Your task to perform on an android device: open app "Instagram" (install if not already installed) Image 0: 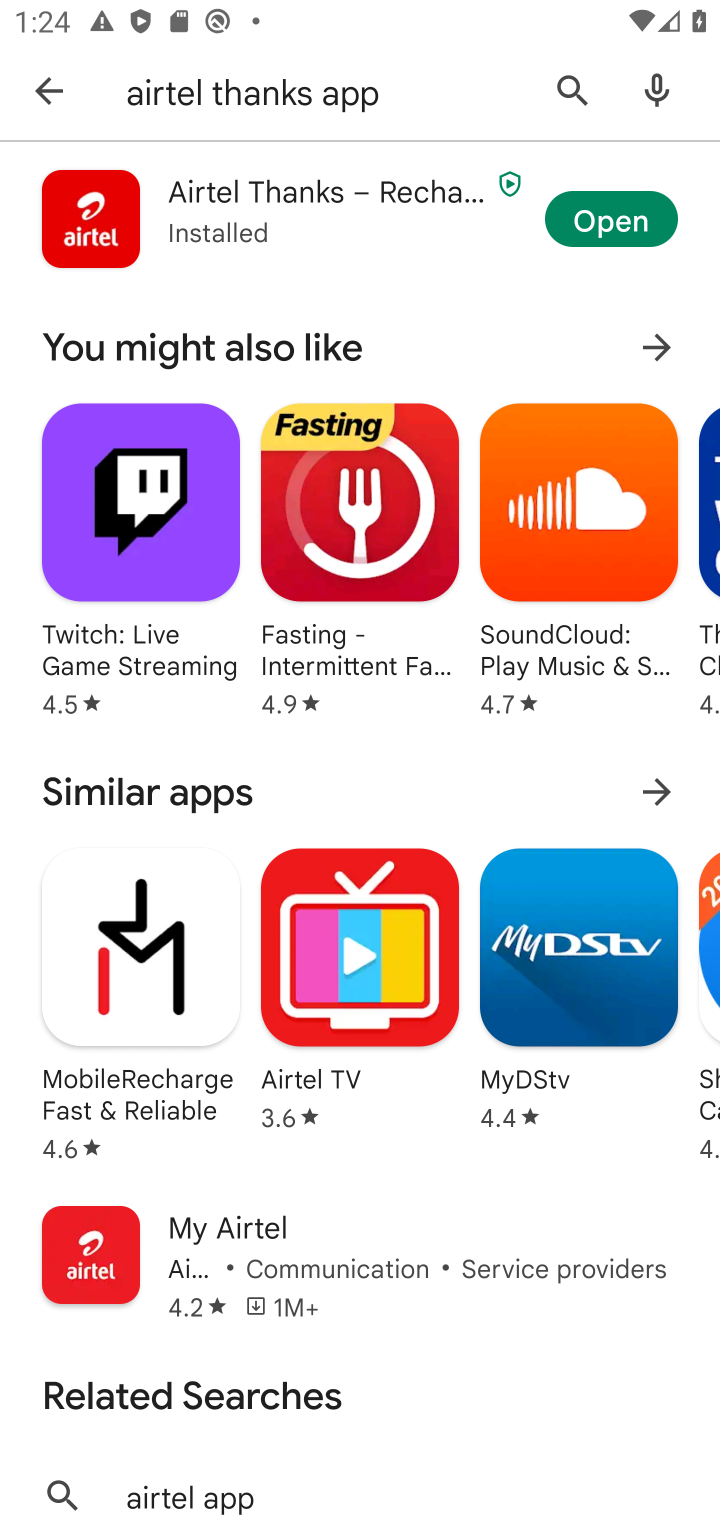
Step 0: click (59, 77)
Your task to perform on an android device: open app "Instagram" (install if not already installed) Image 1: 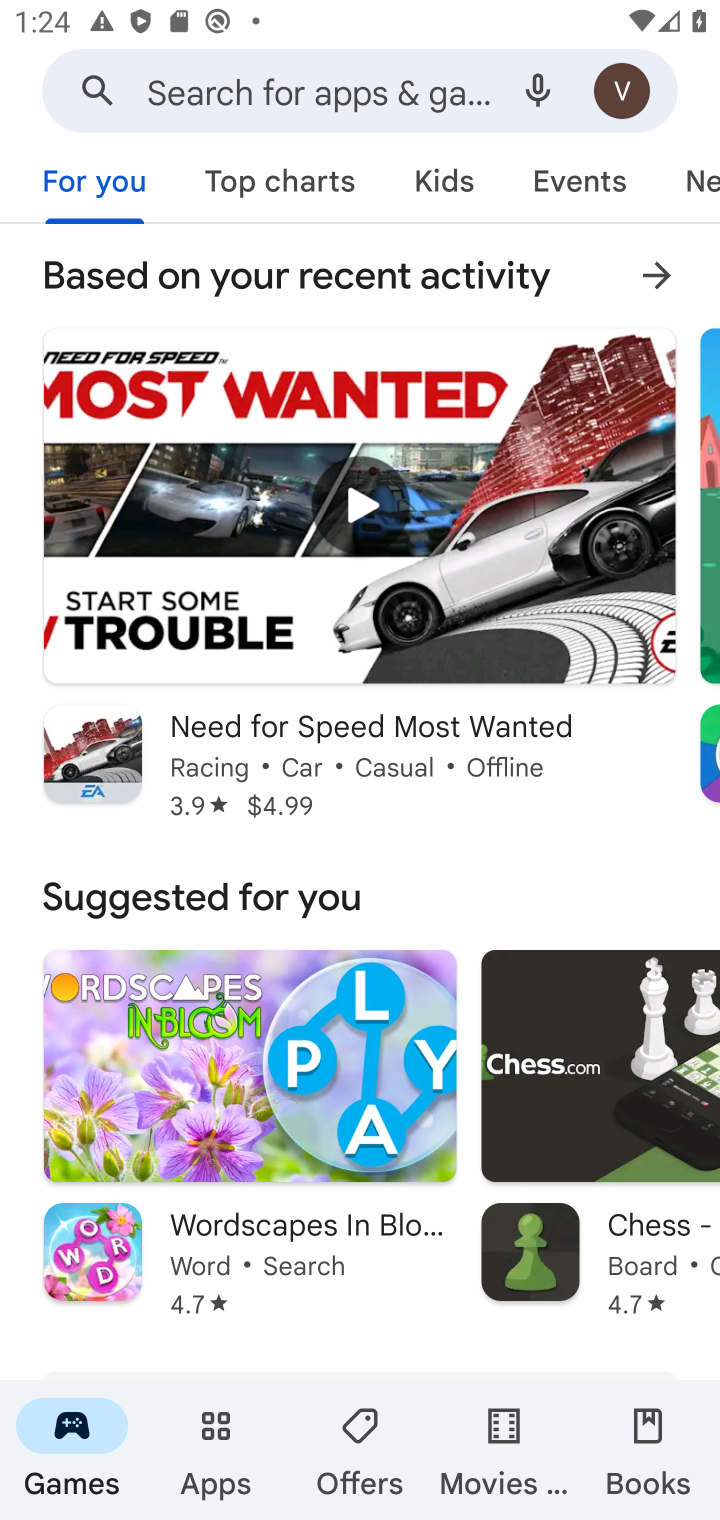
Step 1: press home button
Your task to perform on an android device: open app "Instagram" (install if not already installed) Image 2: 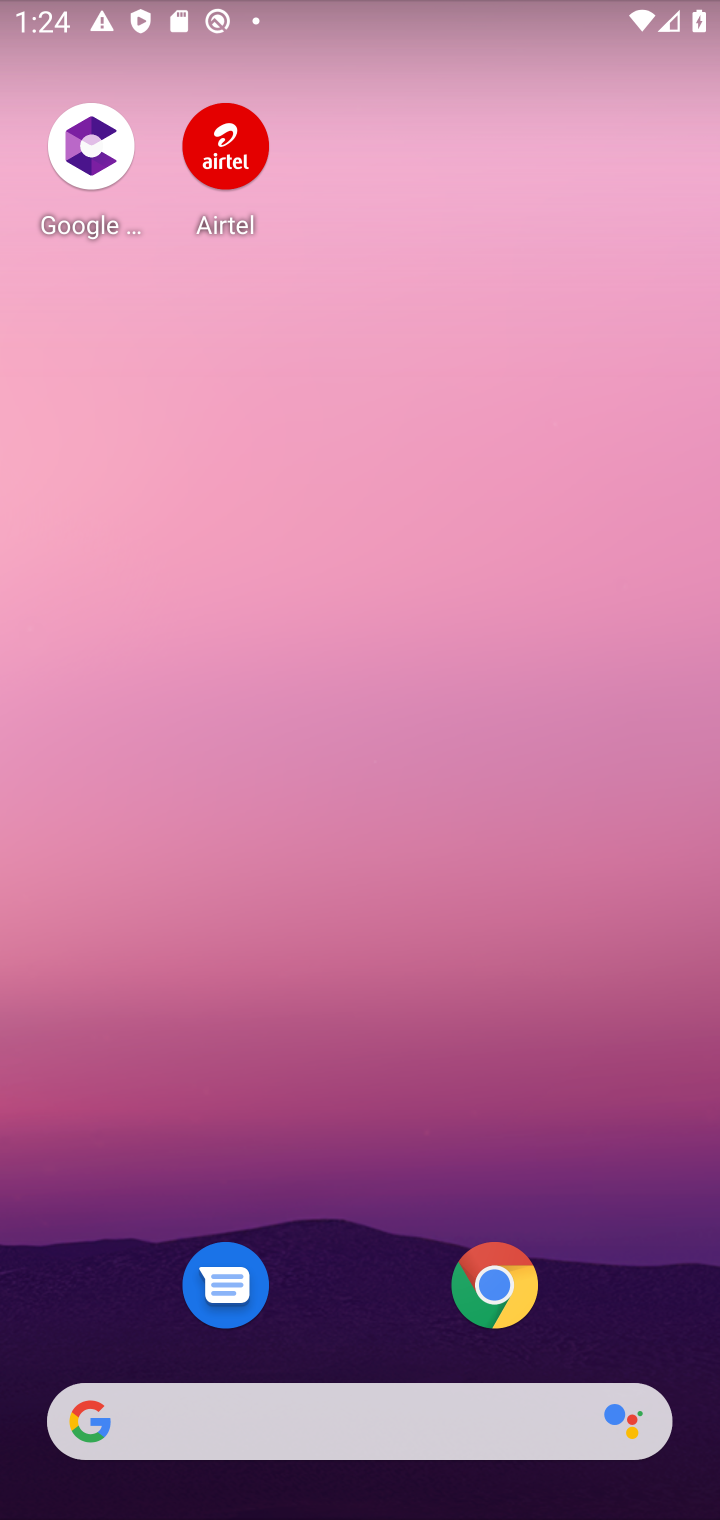
Step 2: drag from (144, 1087) to (28, 83)
Your task to perform on an android device: open app "Instagram" (install if not already installed) Image 3: 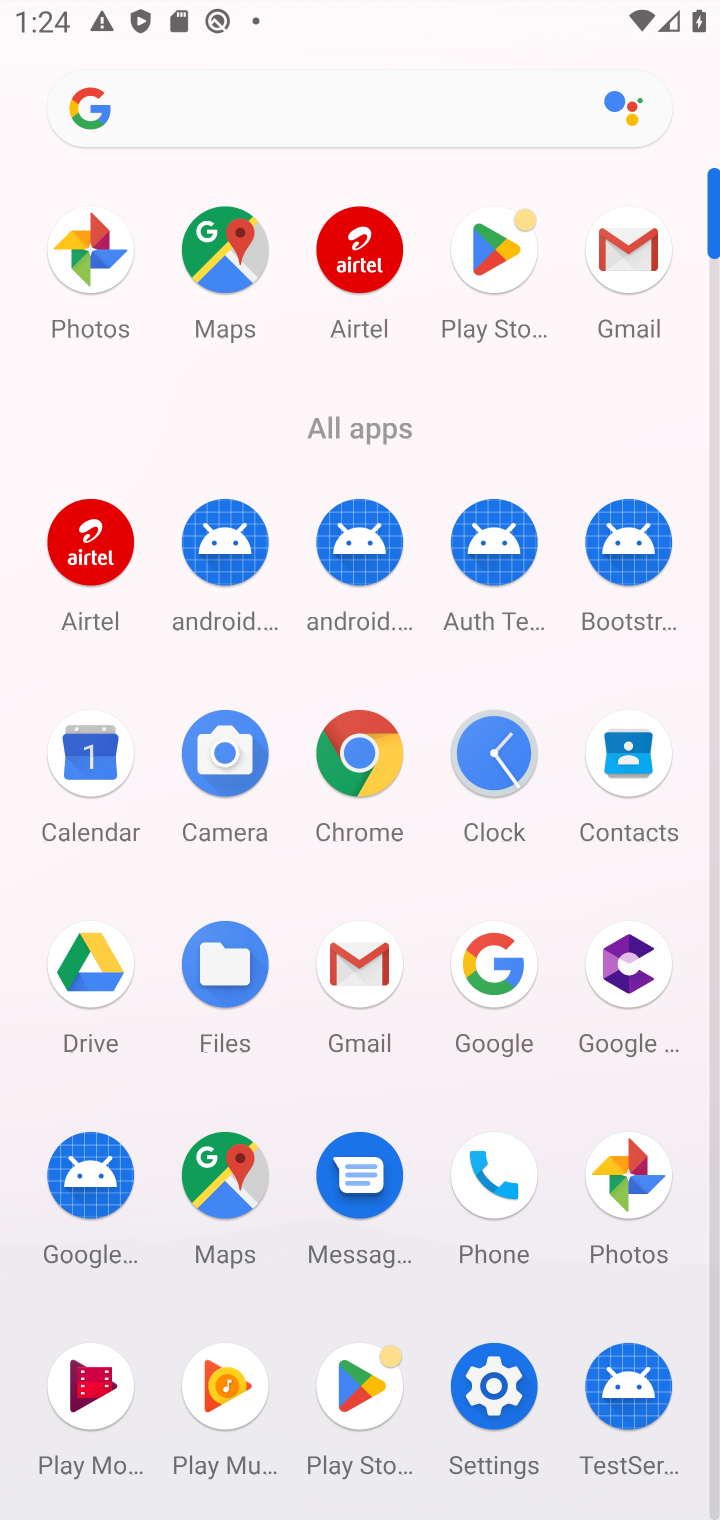
Step 3: click (362, 1386)
Your task to perform on an android device: open app "Instagram" (install if not already installed) Image 4: 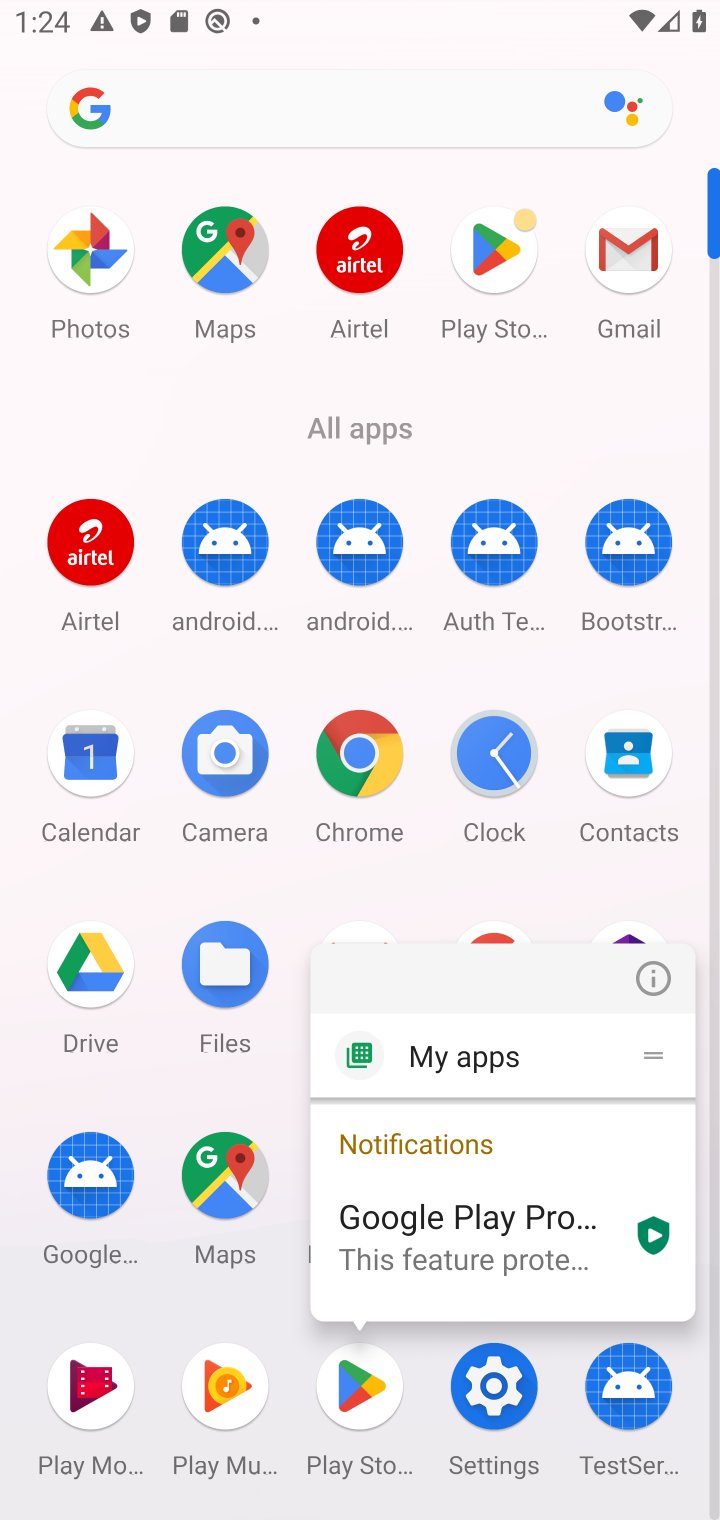
Step 4: click (372, 1413)
Your task to perform on an android device: open app "Instagram" (install if not already installed) Image 5: 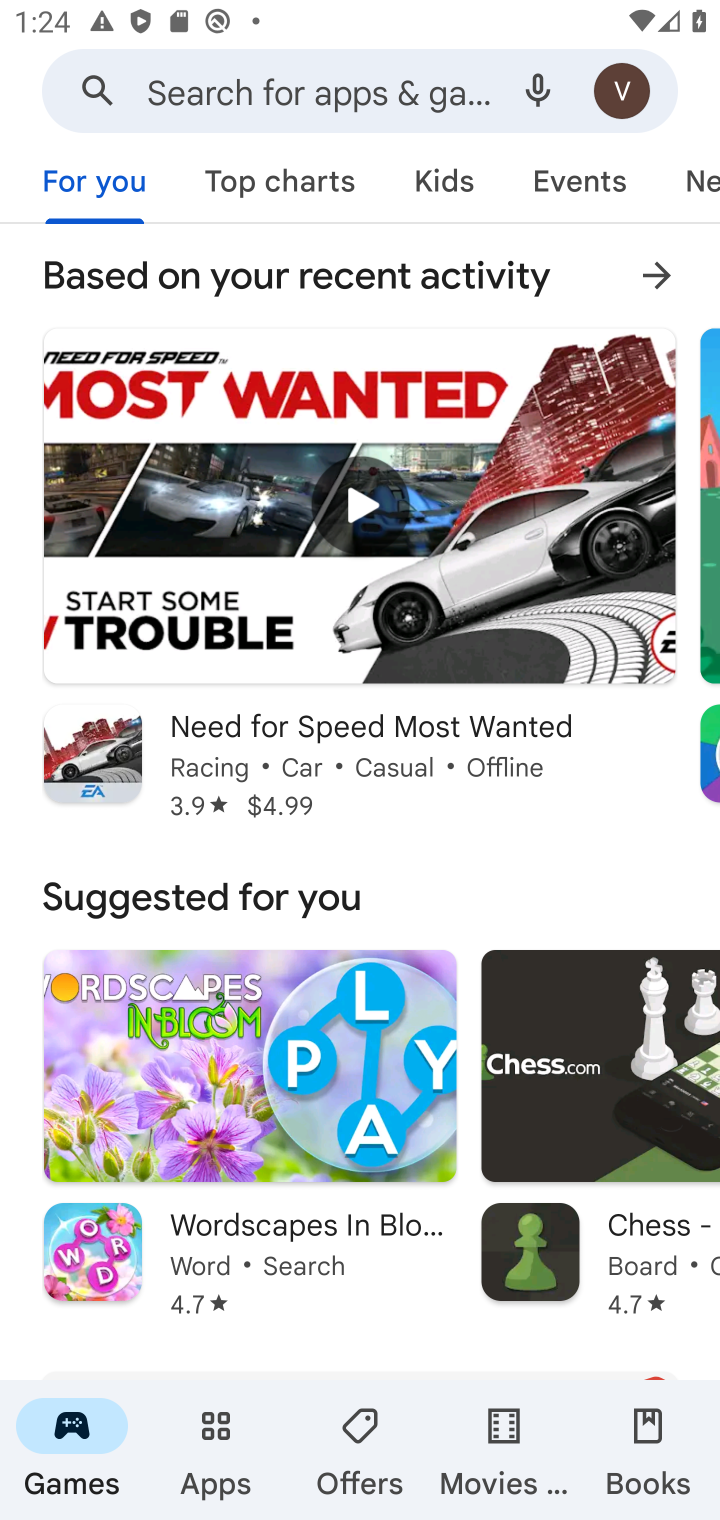
Step 5: click (231, 110)
Your task to perform on an android device: open app "Instagram" (install if not already installed) Image 6: 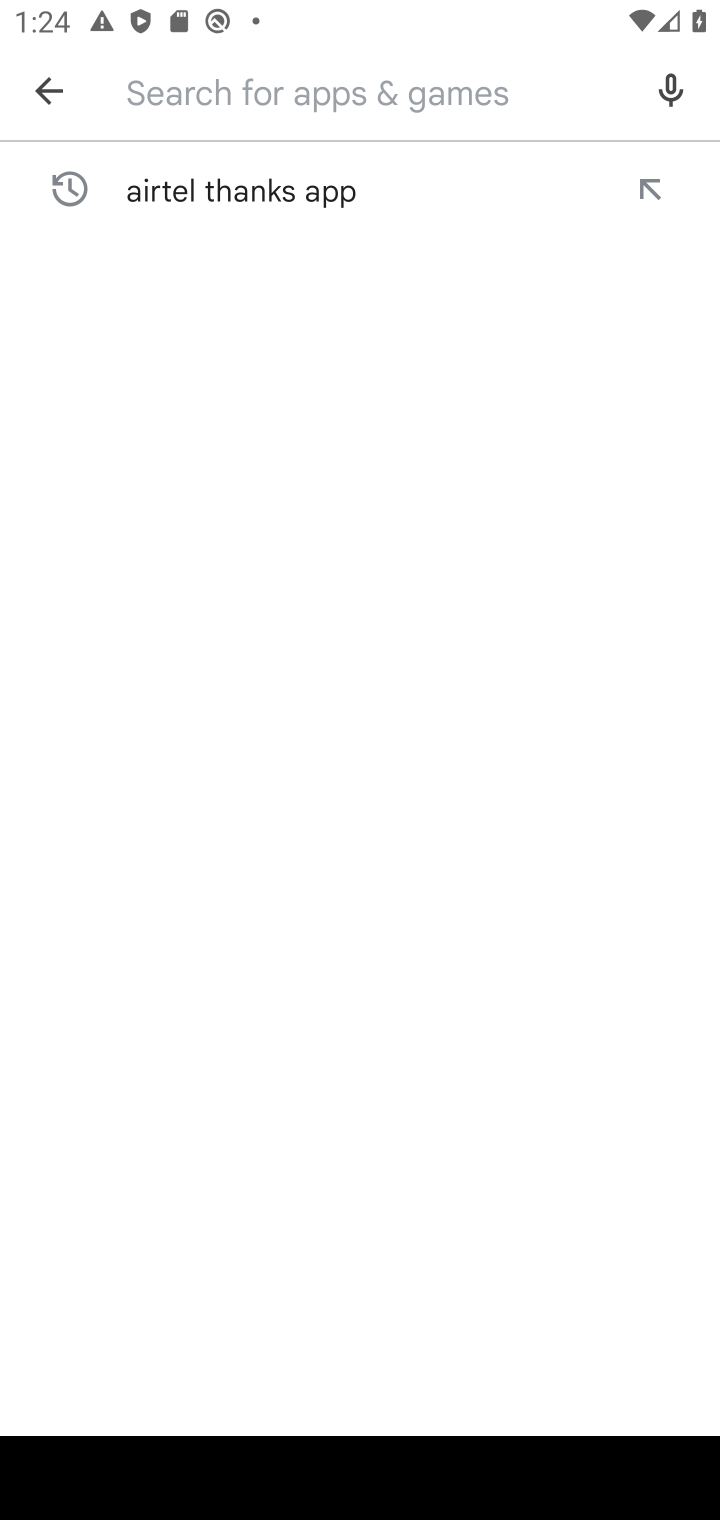
Step 6: type "Instagram"
Your task to perform on an android device: open app "Instagram" (install if not already installed) Image 7: 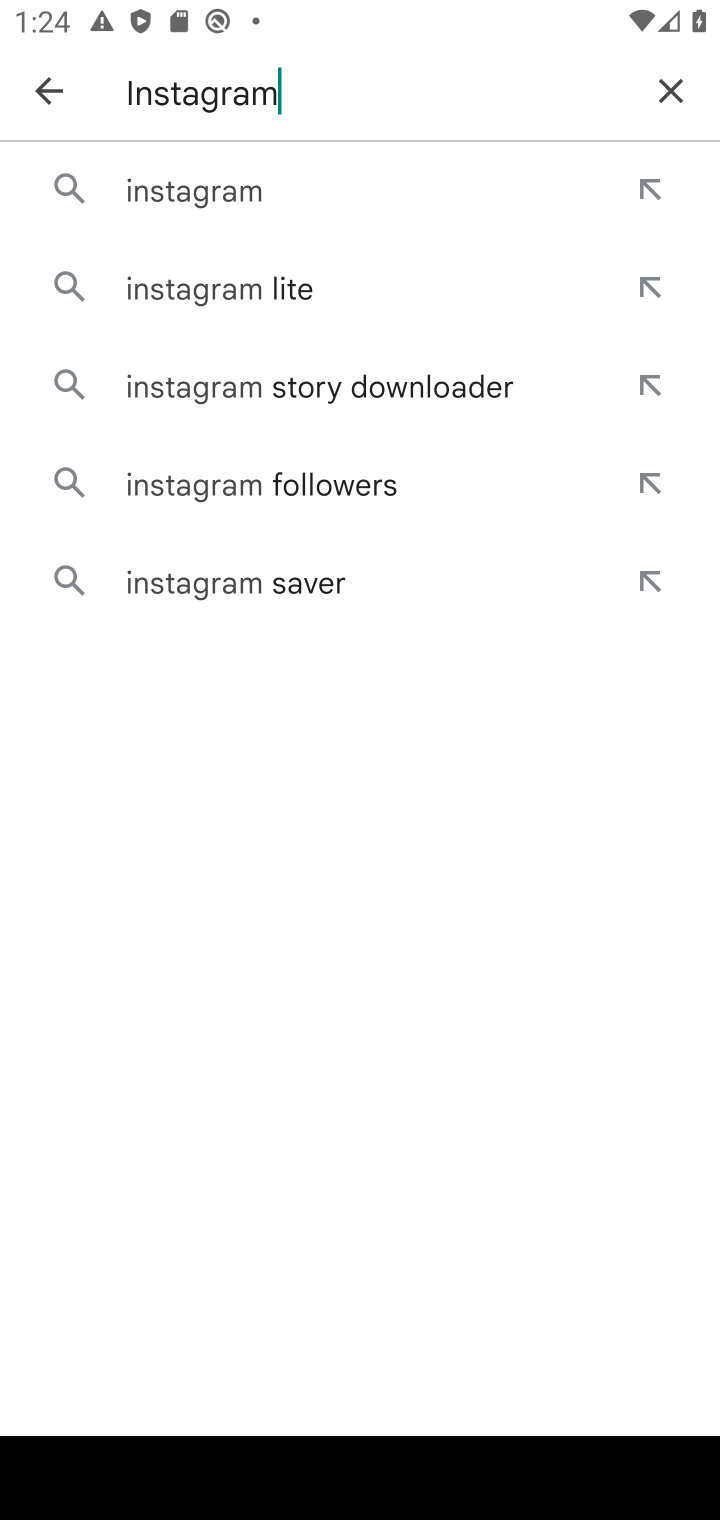
Step 7: click (169, 206)
Your task to perform on an android device: open app "Instagram" (install if not already installed) Image 8: 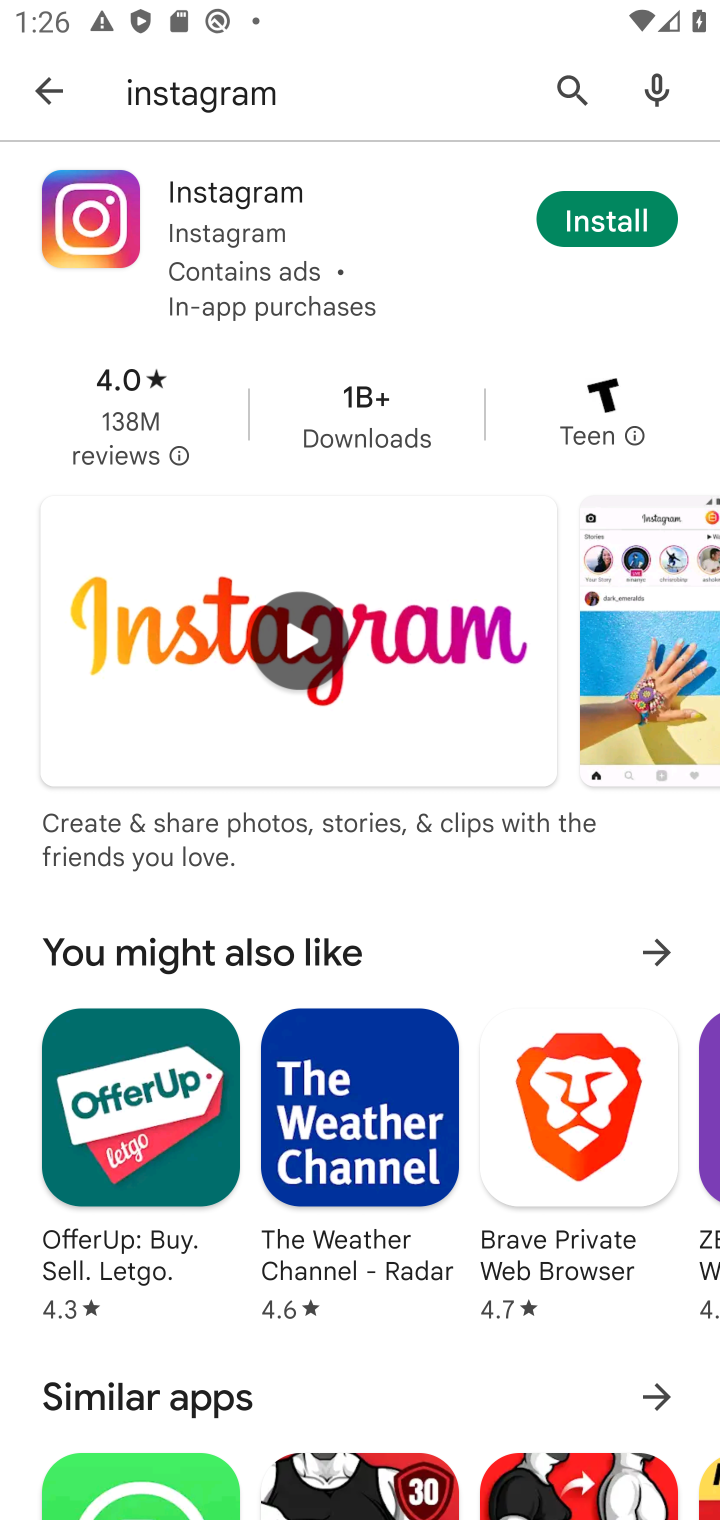
Step 8: click (629, 226)
Your task to perform on an android device: open app "Instagram" (install if not already installed) Image 9: 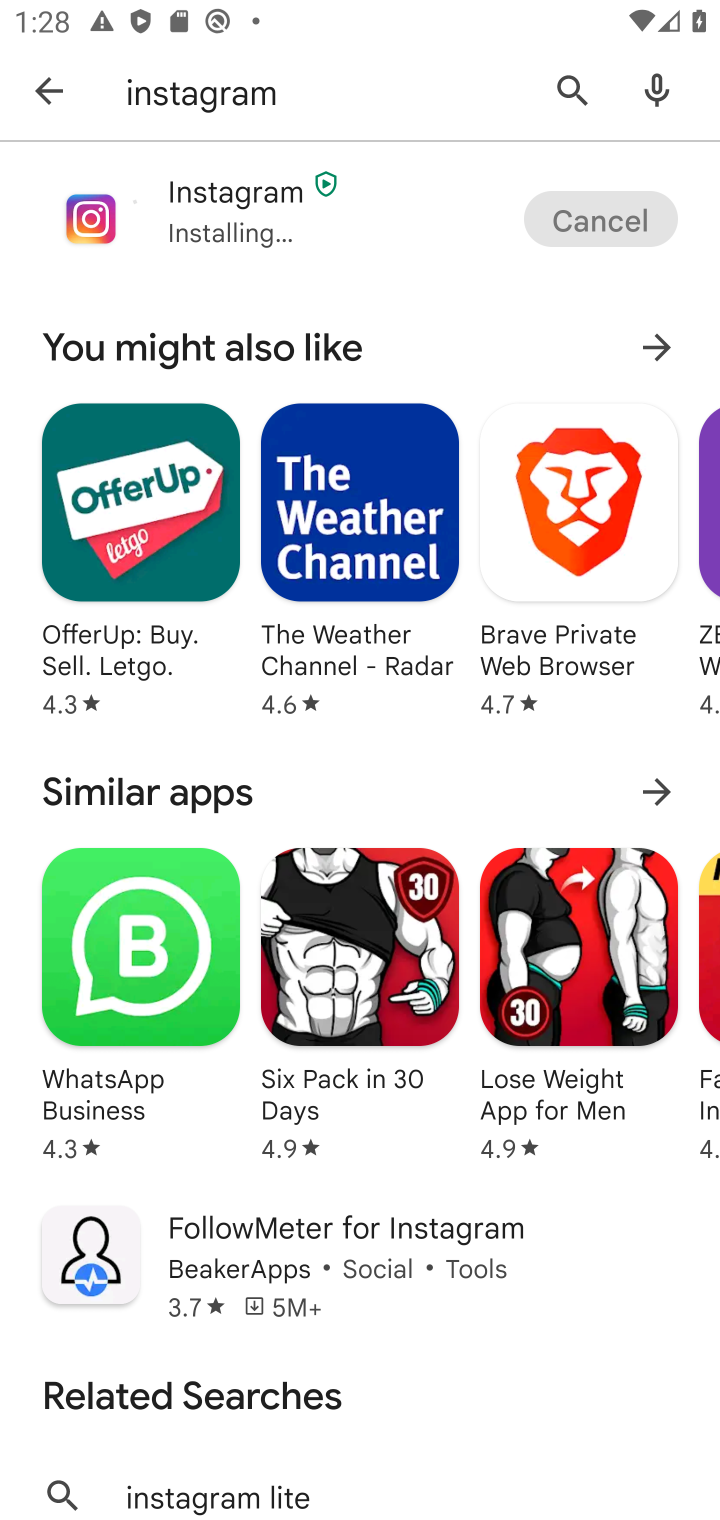
Step 9: click (423, 212)
Your task to perform on an android device: open app "Instagram" (install if not already installed) Image 10: 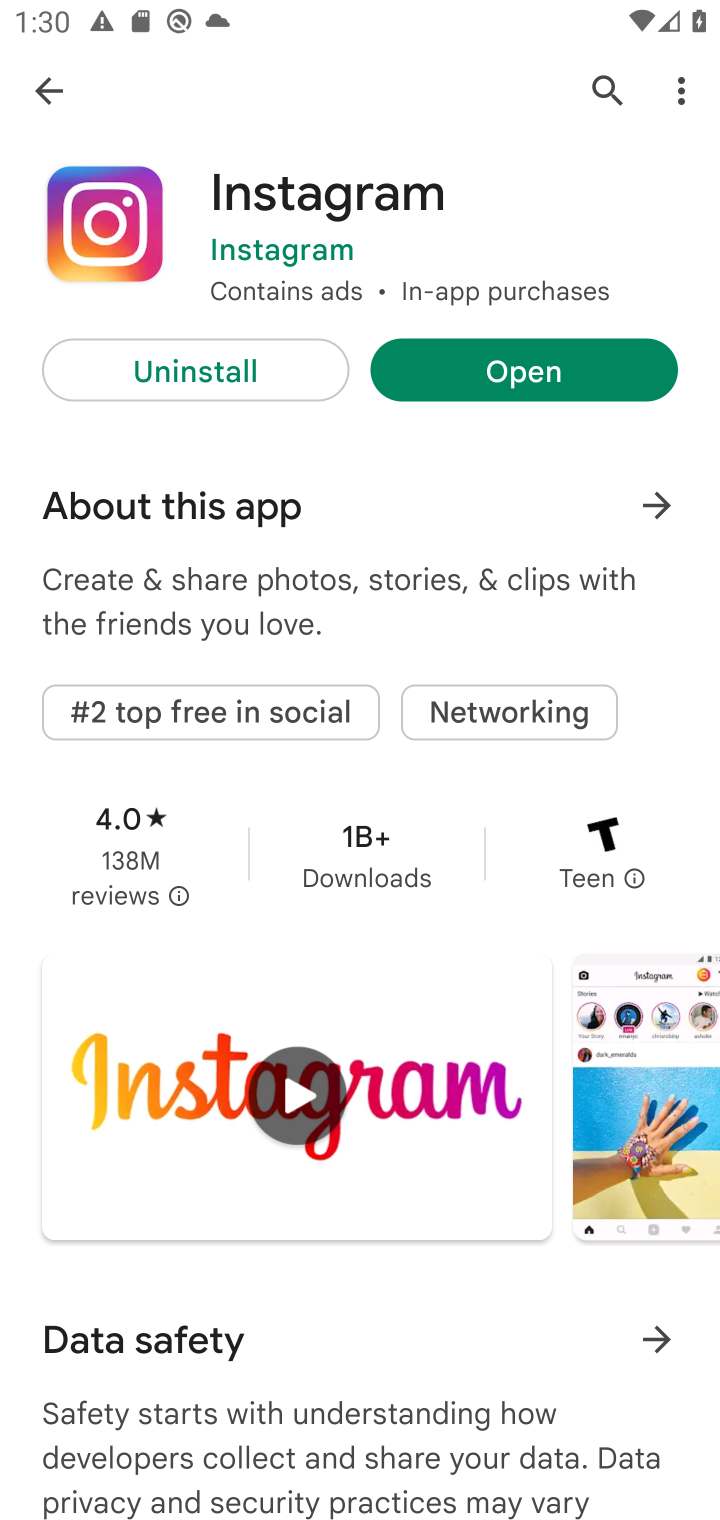
Step 10: click (492, 368)
Your task to perform on an android device: open app "Instagram" (install if not already installed) Image 11: 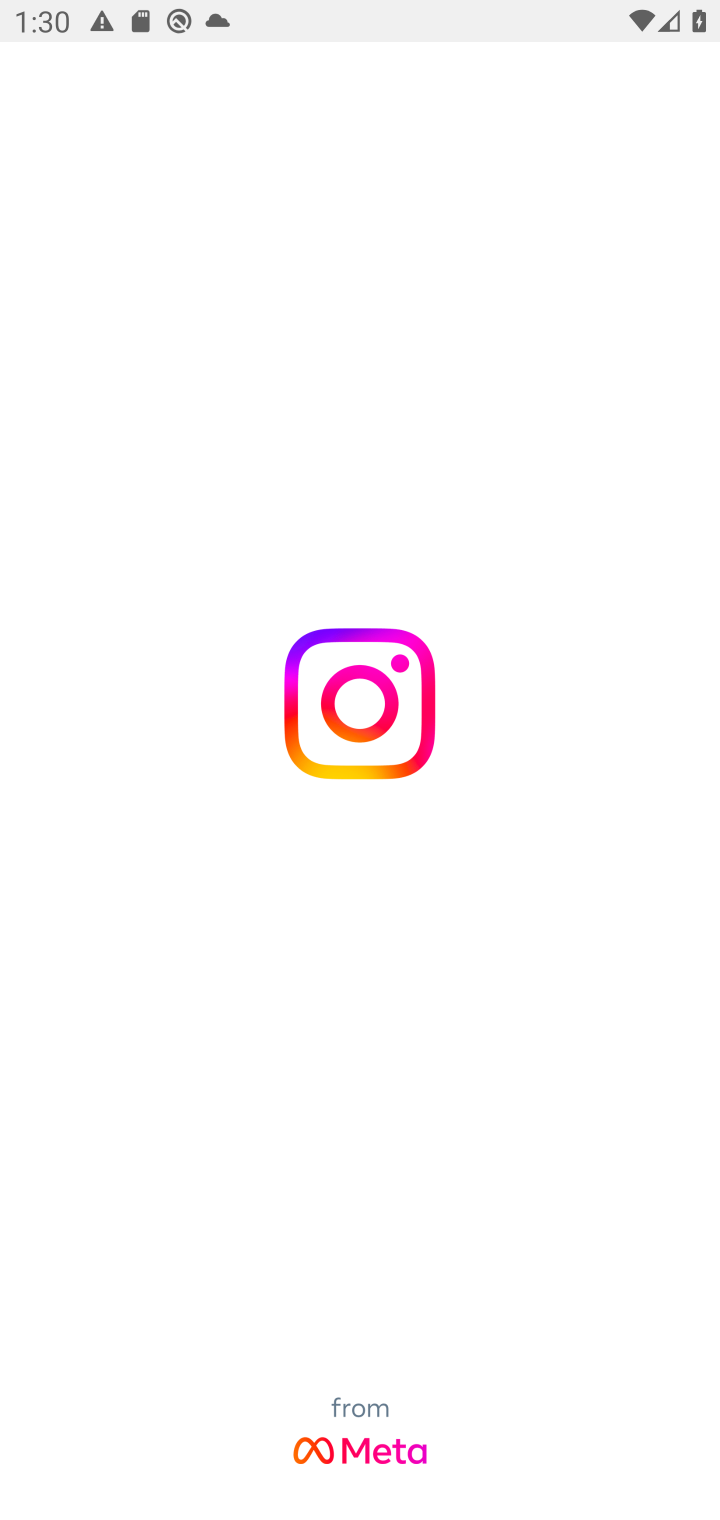
Step 11: task complete